Your task to perform on an android device: Open Wikipedia Image 0: 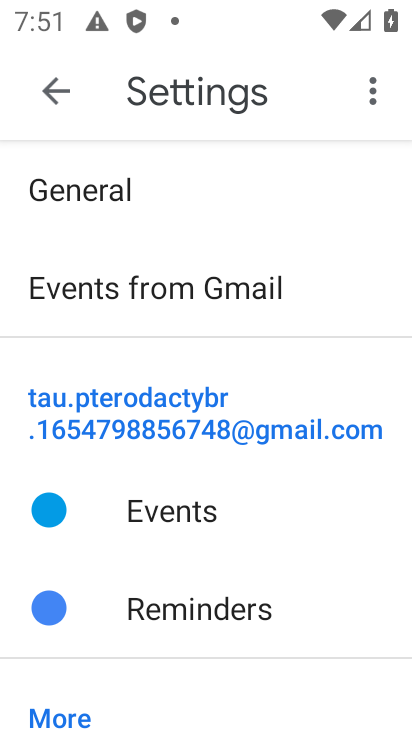
Step 0: press home button
Your task to perform on an android device: Open Wikipedia Image 1: 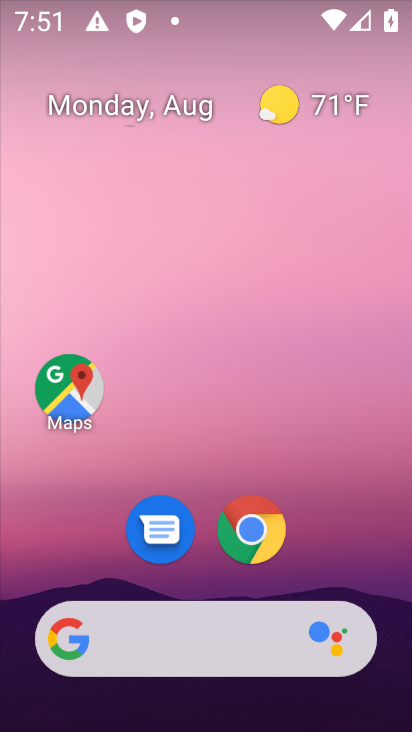
Step 1: drag from (300, 675) to (265, 31)
Your task to perform on an android device: Open Wikipedia Image 2: 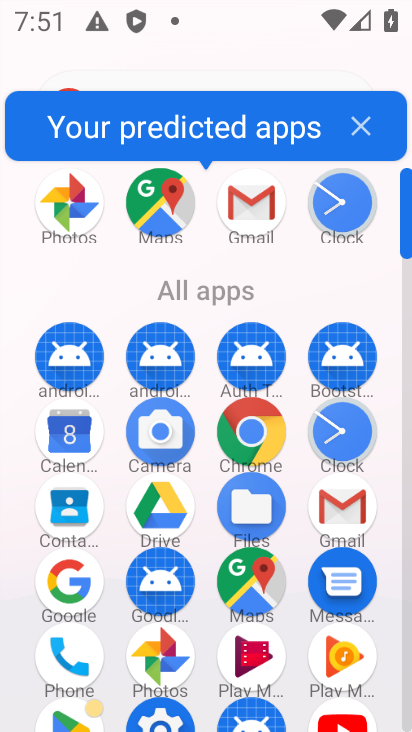
Step 2: click (236, 436)
Your task to perform on an android device: Open Wikipedia Image 3: 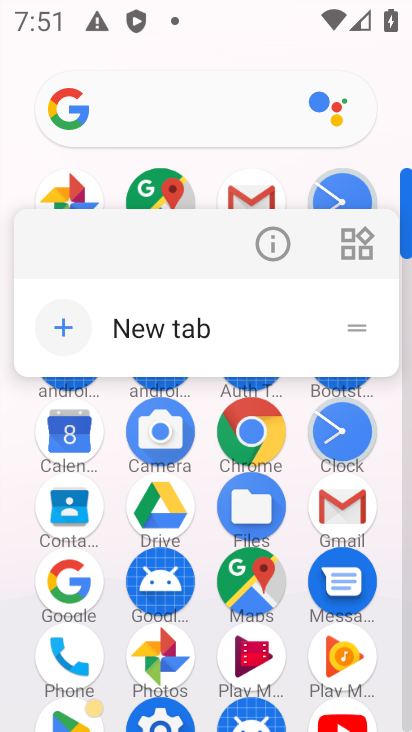
Step 3: click (237, 438)
Your task to perform on an android device: Open Wikipedia Image 4: 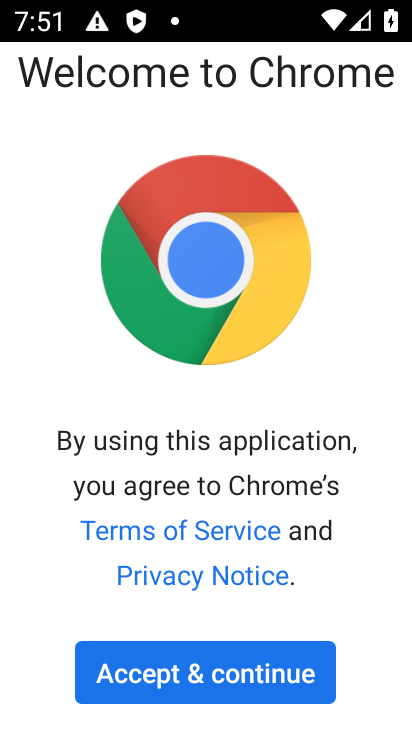
Step 4: click (181, 658)
Your task to perform on an android device: Open Wikipedia Image 5: 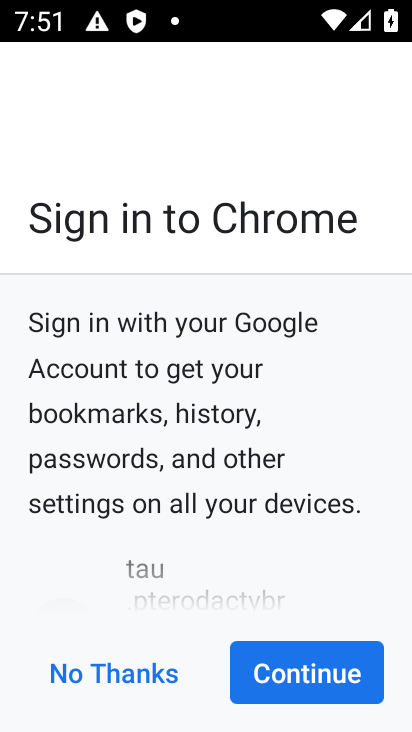
Step 5: click (295, 676)
Your task to perform on an android device: Open Wikipedia Image 6: 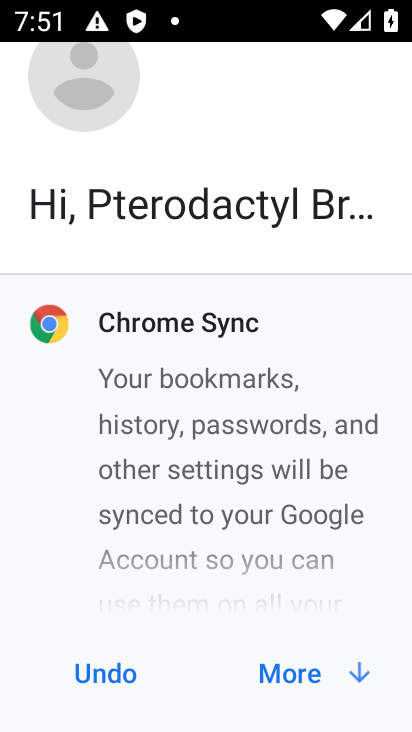
Step 6: click (292, 676)
Your task to perform on an android device: Open Wikipedia Image 7: 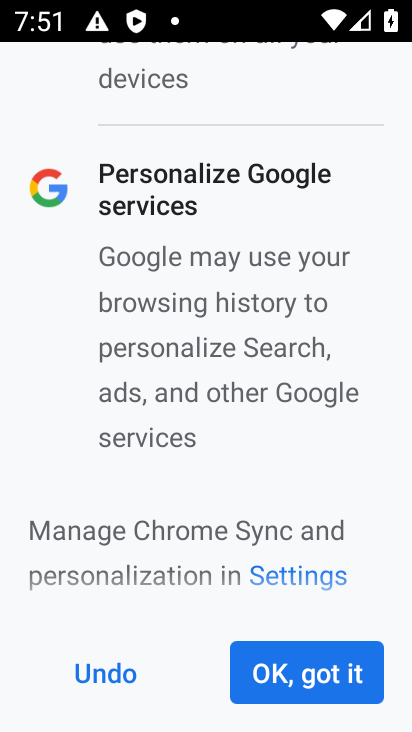
Step 7: click (291, 677)
Your task to perform on an android device: Open Wikipedia Image 8: 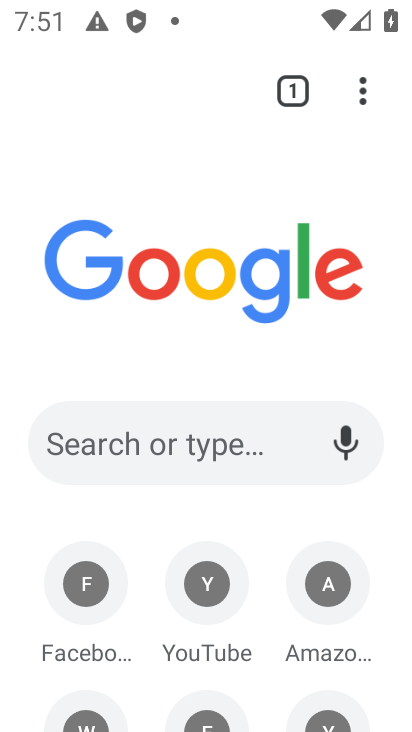
Step 8: click (207, 429)
Your task to perform on an android device: Open Wikipedia Image 9: 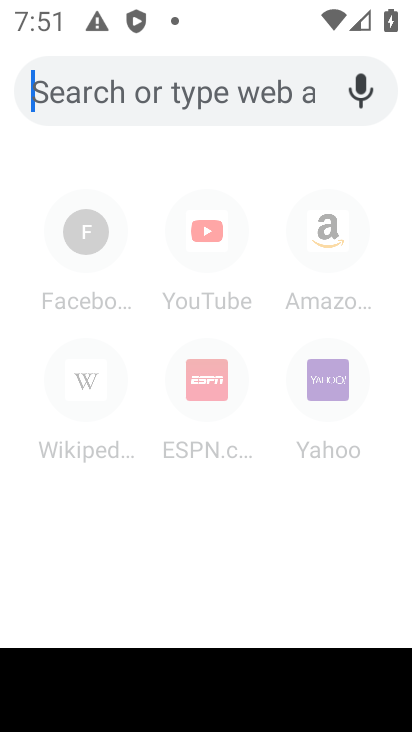
Step 9: click (102, 382)
Your task to perform on an android device: Open Wikipedia Image 10: 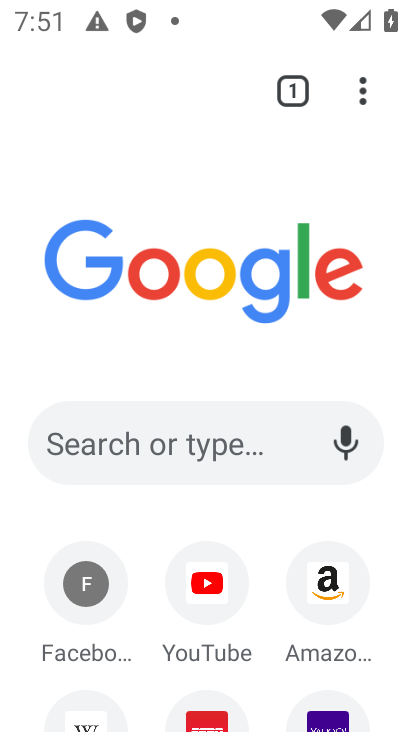
Step 10: click (112, 713)
Your task to perform on an android device: Open Wikipedia Image 11: 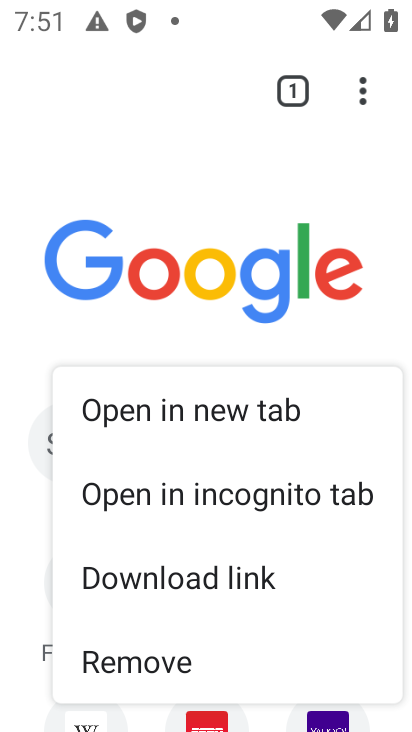
Step 11: click (55, 718)
Your task to perform on an android device: Open Wikipedia Image 12: 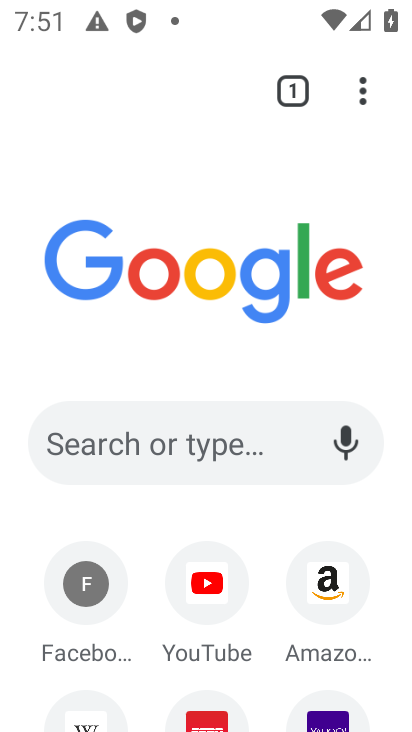
Step 12: click (72, 706)
Your task to perform on an android device: Open Wikipedia Image 13: 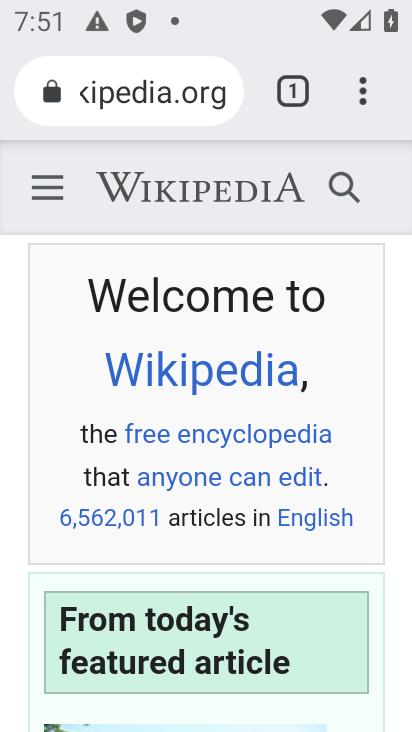
Step 13: task complete